Your task to perform on an android device: read, delete, or share a saved page in the chrome app Image 0: 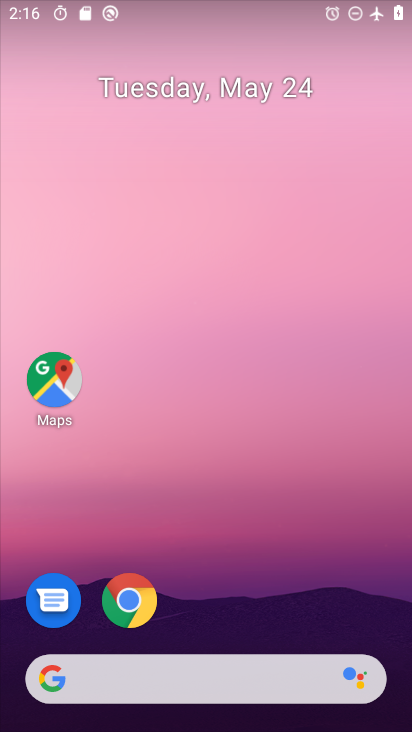
Step 0: click (124, 602)
Your task to perform on an android device: read, delete, or share a saved page in the chrome app Image 1: 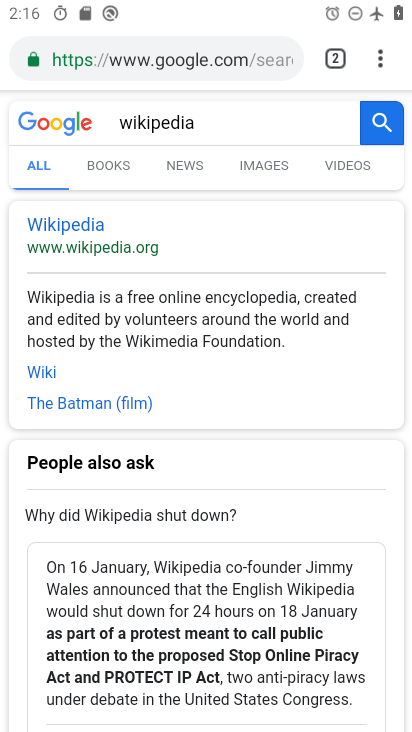
Step 1: click (383, 48)
Your task to perform on an android device: read, delete, or share a saved page in the chrome app Image 2: 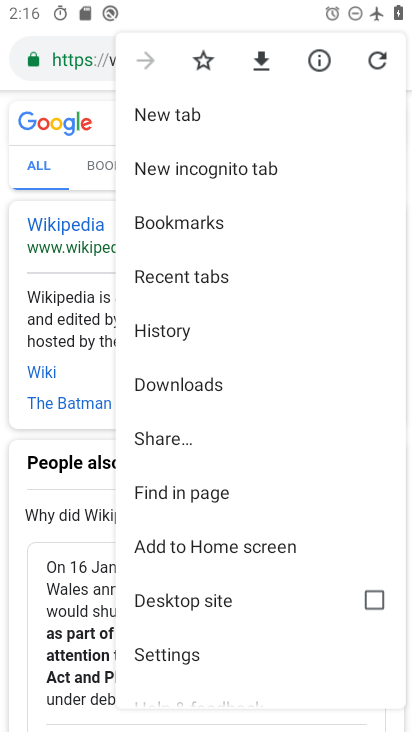
Step 2: click (154, 379)
Your task to perform on an android device: read, delete, or share a saved page in the chrome app Image 3: 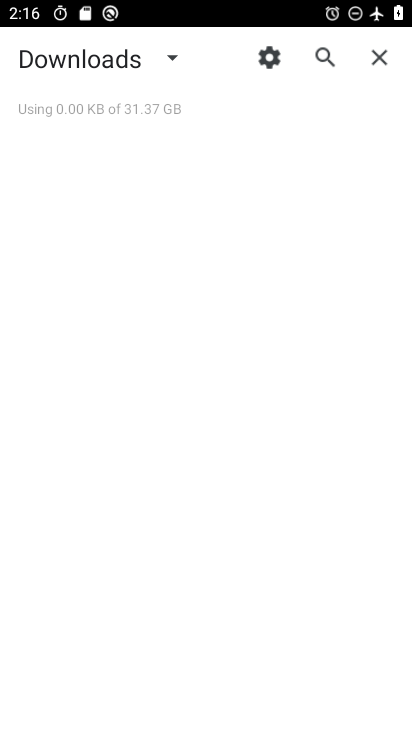
Step 3: task complete